Your task to perform on an android device: toggle data saver in the chrome app Image 0: 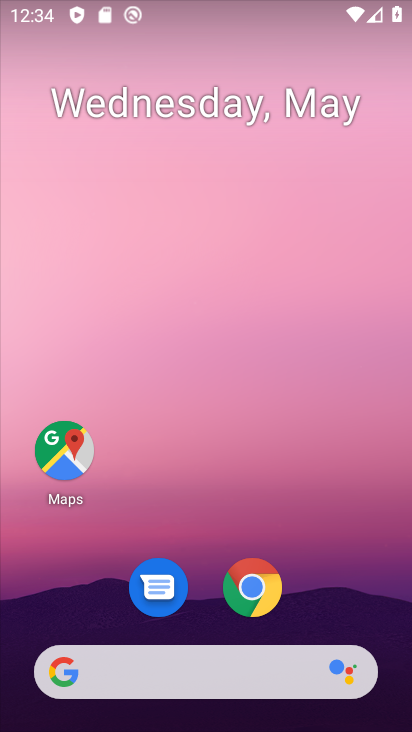
Step 0: drag from (378, 613) to (352, 229)
Your task to perform on an android device: toggle data saver in the chrome app Image 1: 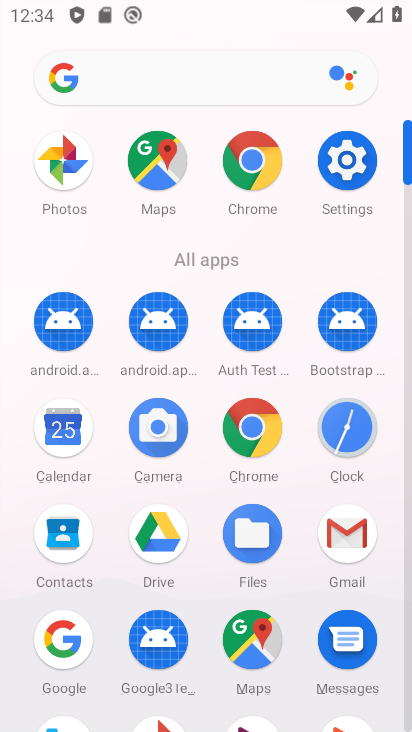
Step 1: click (272, 418)
Your task to perform on an android device: toggle data saver in the chrome app Image 2: 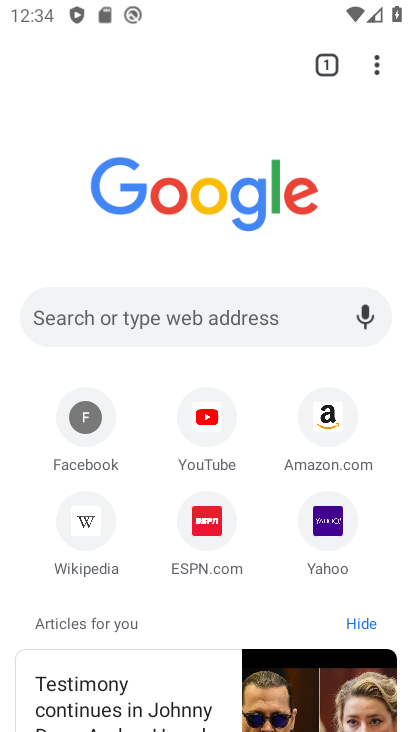
Step 2: click (378, 74)
Your task to perform on an android device: toggle data saver in the chrome app Image 3: 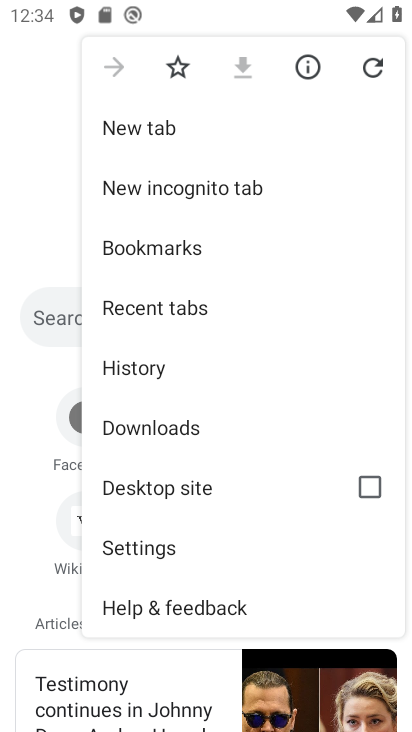
Step 3: click (223, 550)
Your task to perform on an android device: toggle data saver in the chrome app Image 4: 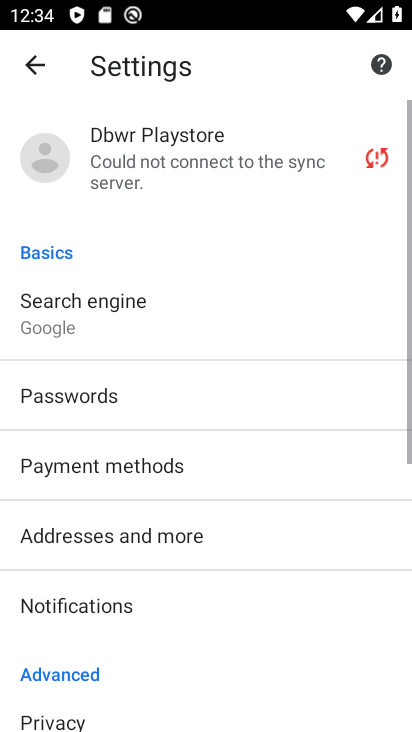
Step 4: click (274, 485)
Your task to perform on an android device: toggle data saver in the chrome app Image 5: 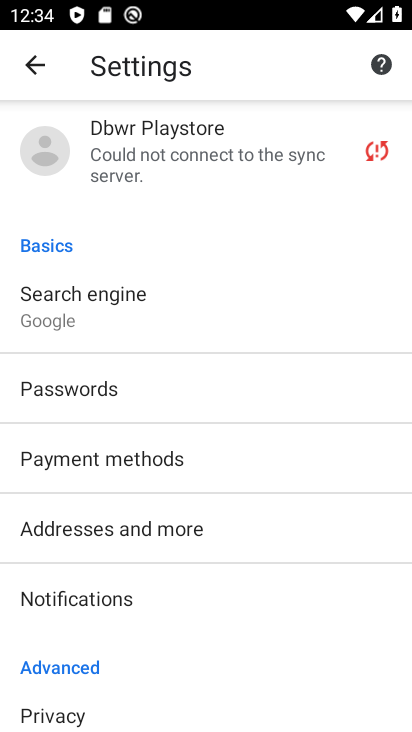
Step 5: drag from (308, 598) to (333, 480)
Your task to perform on an android device: toggle data saver in the chrome app Image 6: 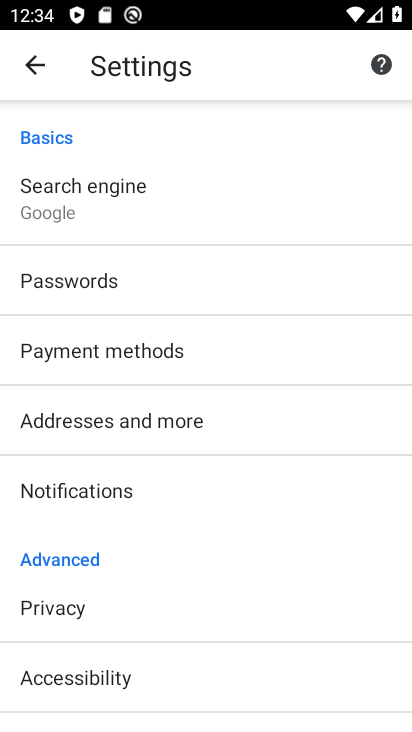
Step 6: drag from (339, 617) to (356, 505)
Your task to perform on an android device: toggle data saver in the chrome app Image 7: 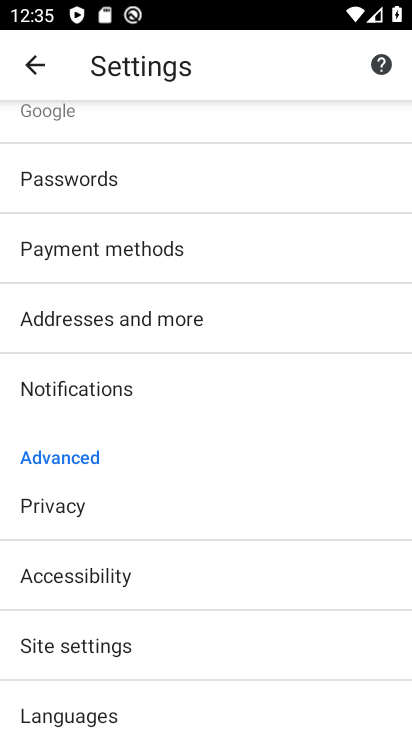
Step 7: drag from (340, 644) to (335, 542)
Your task to perform on an android device: toggle data saver in the chrome app Image 8: 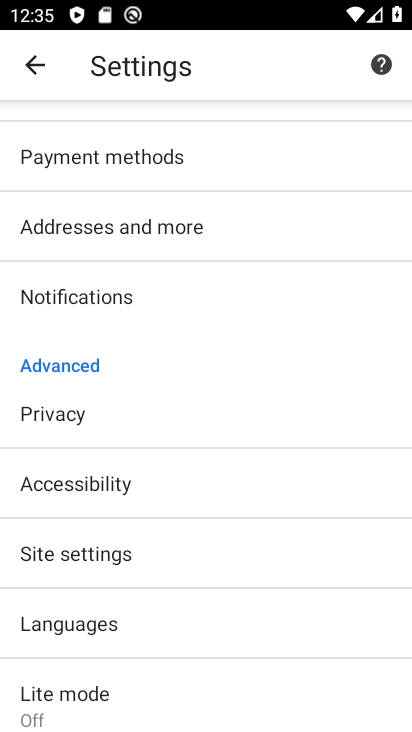
Step 8: drag from (337, 639) to (352, 535)
Your task to perform on an android device: toggle data saver in the chrome app Image 9: 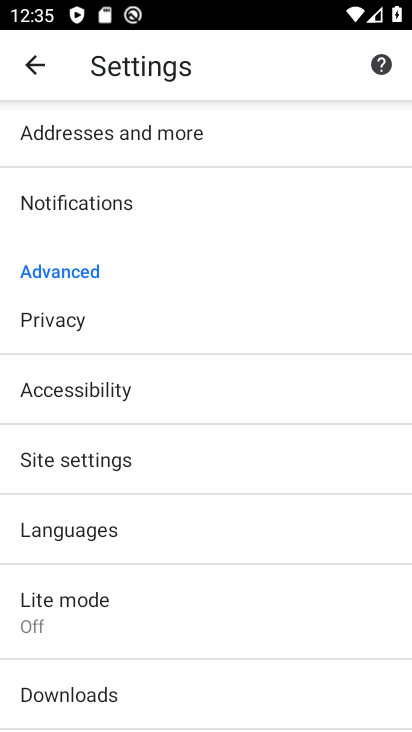
Step 9: drag from (348, 631) to (358, 516)
Your task to perform on an android device: toggle data saver in the chrome app Image 10: 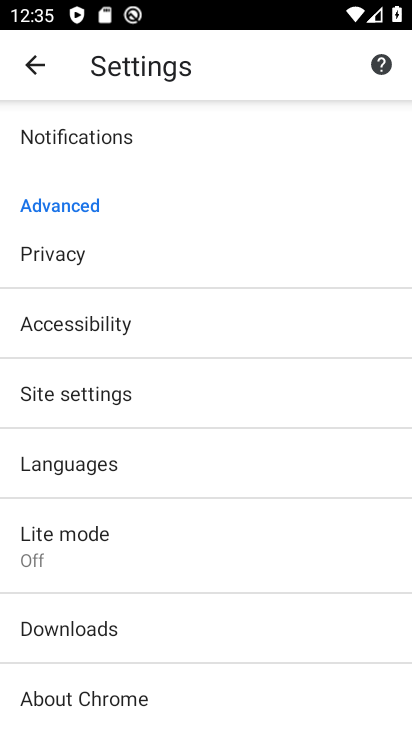
Step 10: click (333, 553)
Your task to perform on an android device: toggle data saver in the chrome app Image 11: 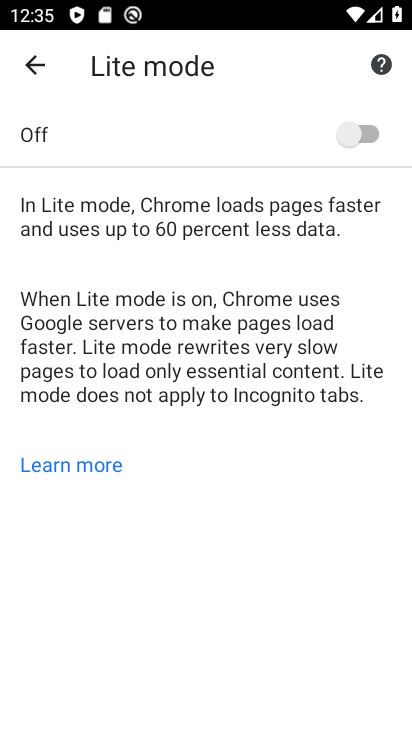
Step 11: click (352, 141)
Your task to perform on an android device: toggle data saver in the chrome app Image 12: 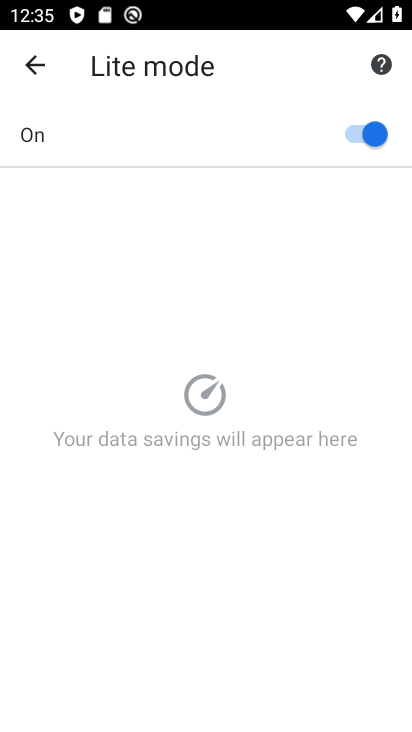
Step 12: task complete